Your task to perform on an android device: see creations saved in the google photos Image 0: 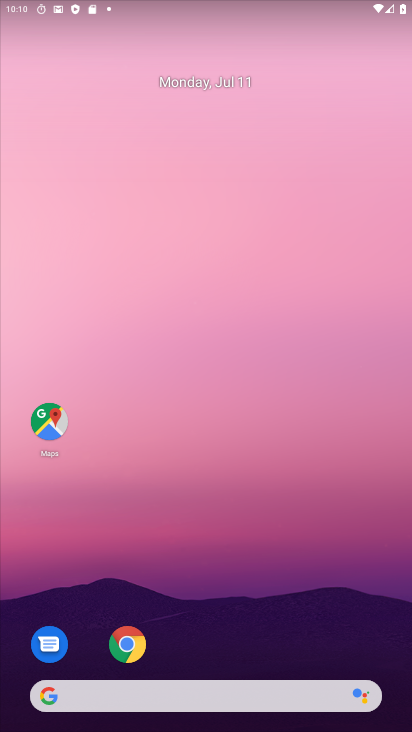
Step 0: drag from (208, 641) to (227, 99)
Your task to perform on an android device: see creations saved in the google photos Image 1: 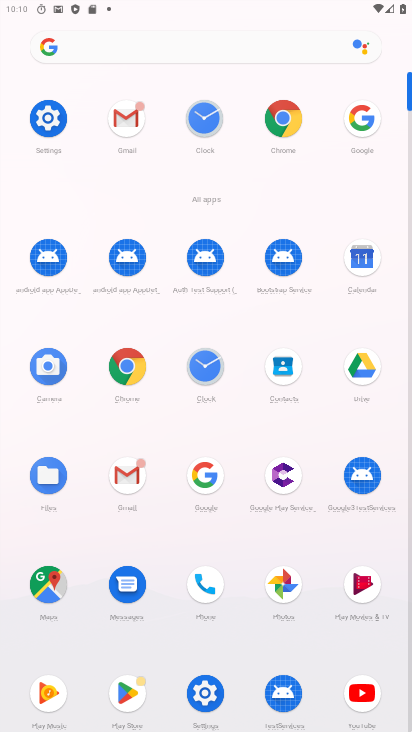
Step 1: click (283, 583)
Your task to perform on an android device: see creations saved in the google photos Image 2: 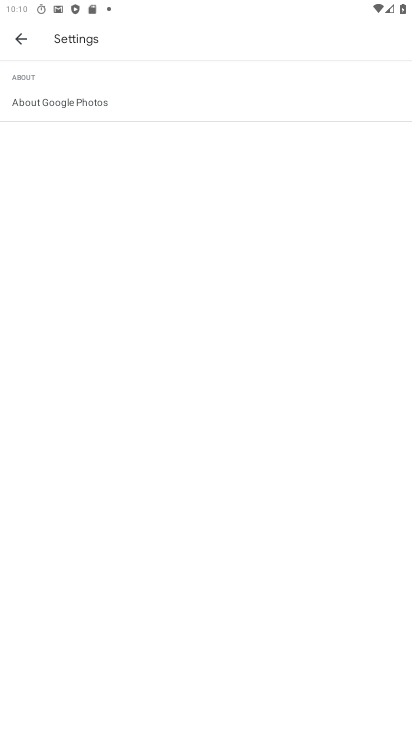
Step 2: press back button
Your task to perform on an android device: see creations saved in the google photos Image 3: 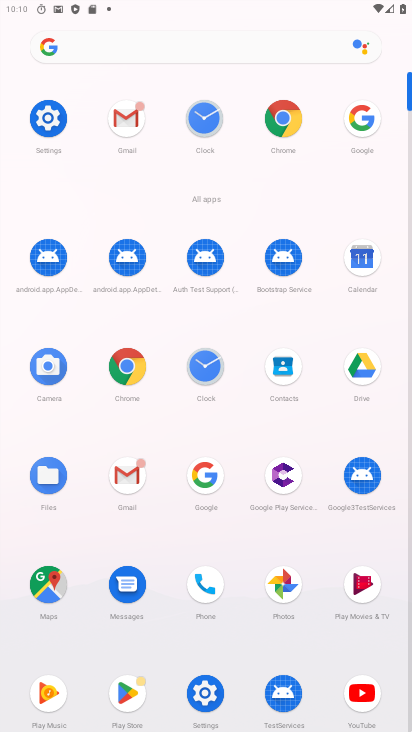
Step 3: click (281, 580)
Your task to perform on an android device: see creations saved in the google photos Image 4: 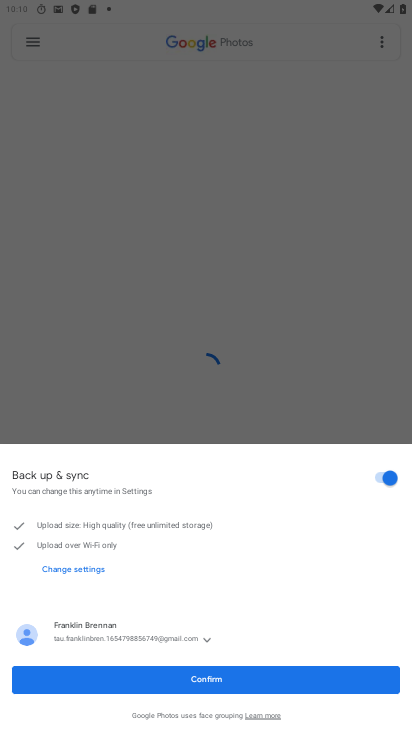
Step 4: click (190, 672)
Your task to perform on an android device: see creations saved in the google photos Image 5: 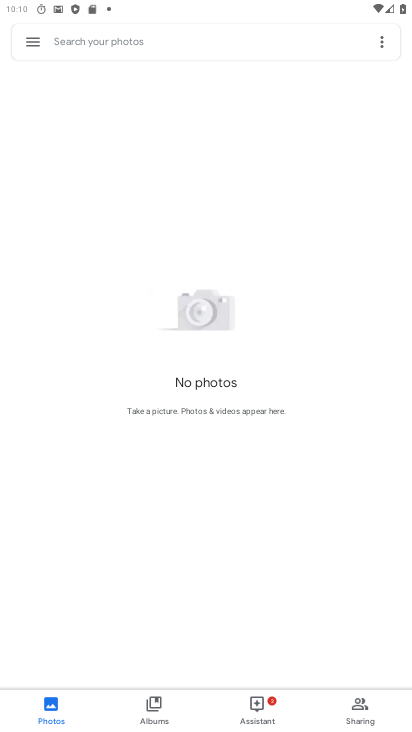
Step 5: click (27, 40)
Your task to perform on an android device: see creations saved in the google photos Image 6: 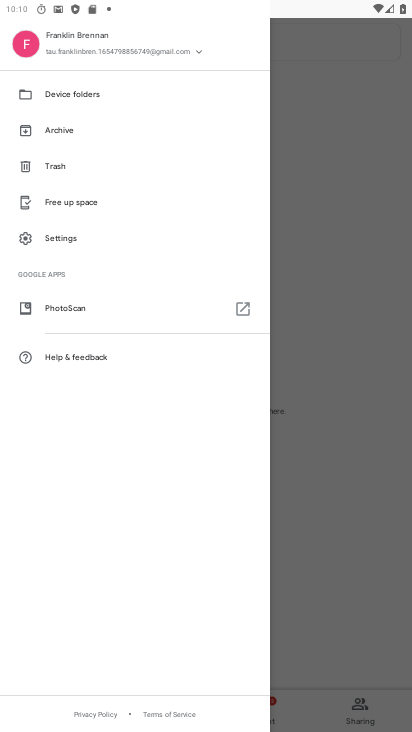
Step 6: click (338, 461)
Your task to perform on an android device: see creations saved in the google photos Image 7: 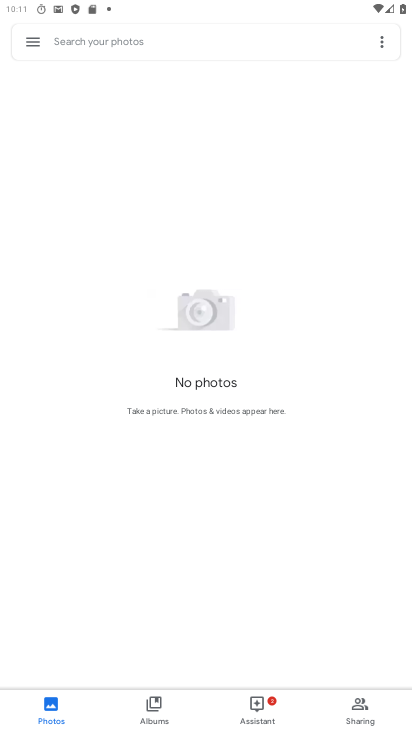
Step 7: click (177, 52)
Your task to perform on an android device: see creations saved in the google photos Image 8: 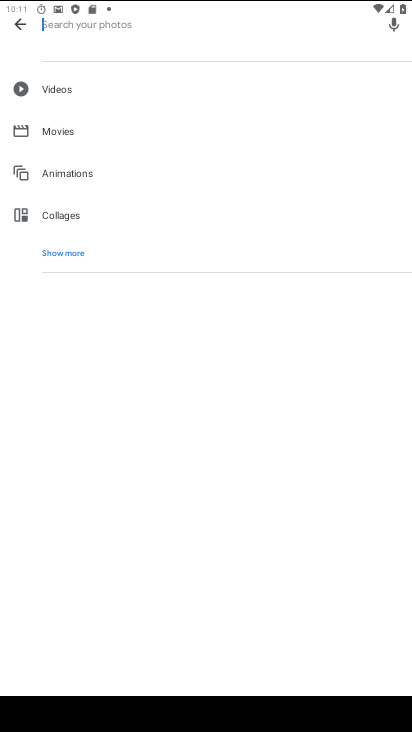
Step 8: click (65, 253)
Your task to perform on an android device: see creations saved in the google photos Image 9: 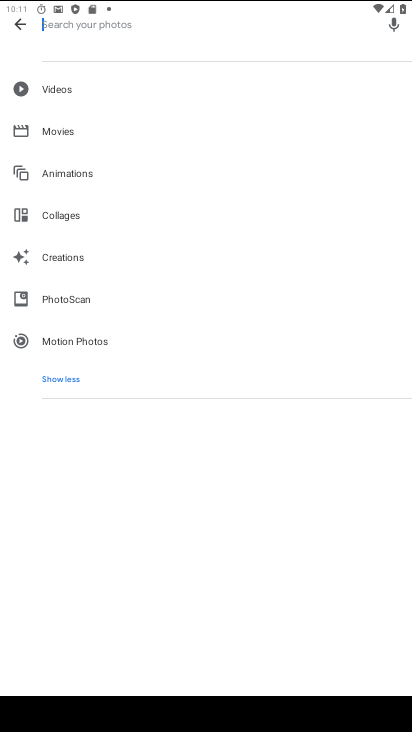
Step 9: click (61, 251)
Your task to perform on an android device: see creations saved in the google photos Image 10: 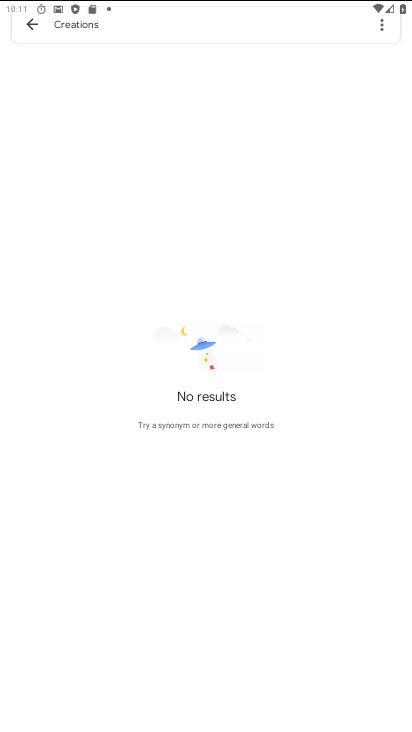
Step 10: task complete